Your task to perform on an android device: Open my contact list Image 0: 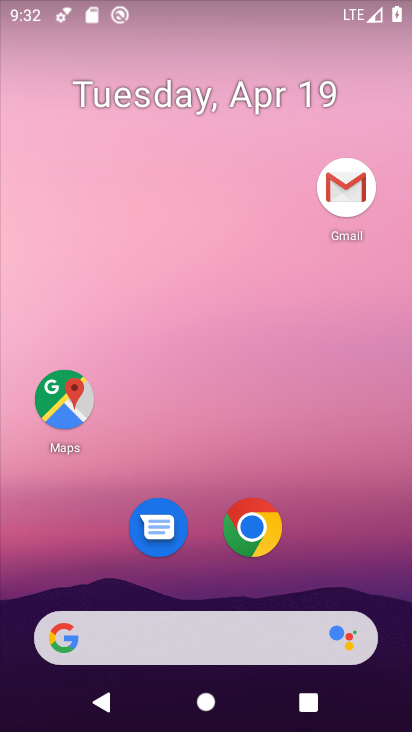
Step 0: click (383, 107)
Your task to perform on an android device: Open my contact list Image 1: 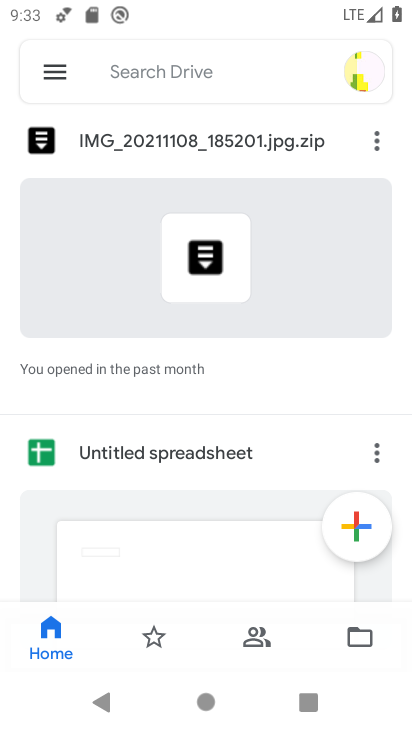
Step 1: press home button
Your task to perform on an android device: Open my contact list Image 2: 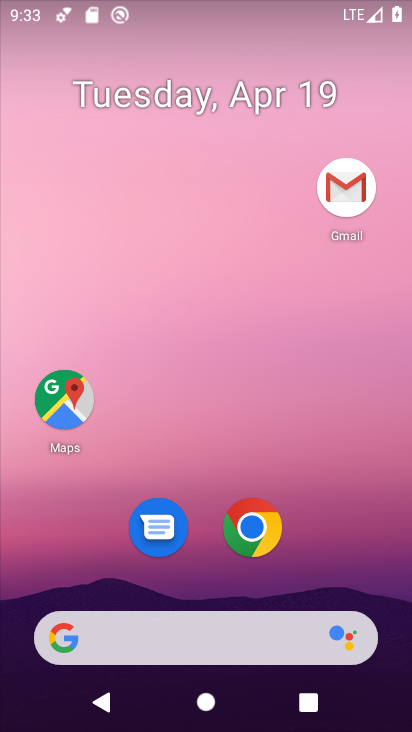
Step 2: drag from (343, 484) to (324, 30)
Your task to perform on an android device: Open my contact list Image 3: 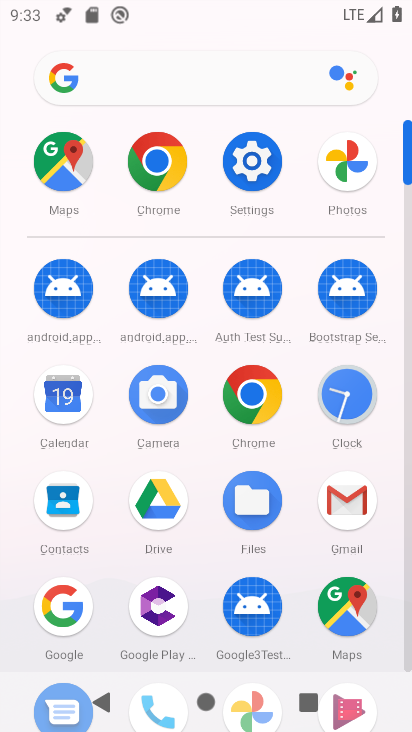
Step 3: click (61, 507)
Your task to perform on an android device: Open my contact list Image 4: 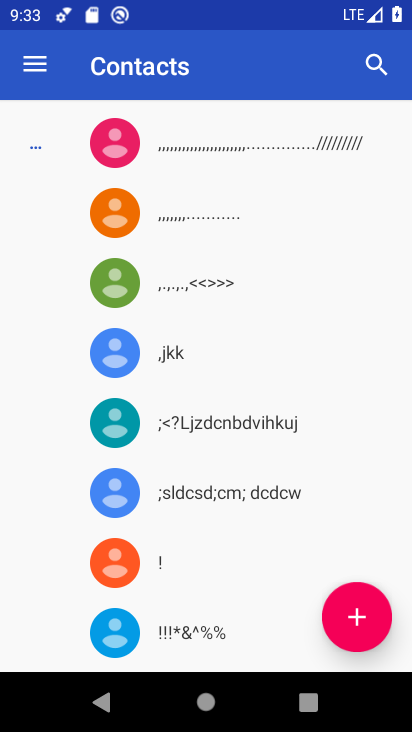
Step 4: task complete